Your task to perform on an android device: empty trash in google photos Image 0: 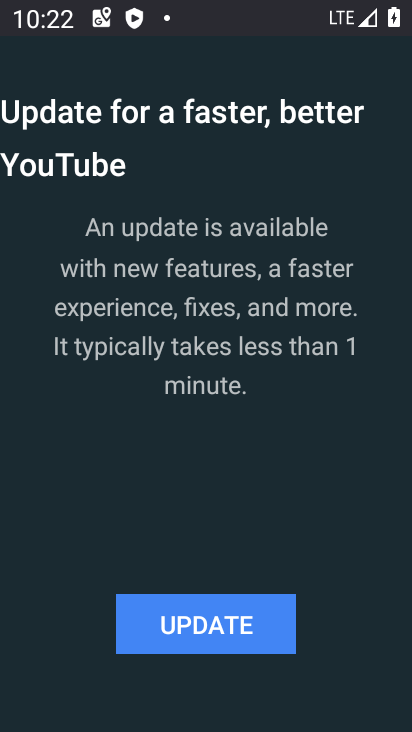
Step 0: press home button
Your task to perform on an android device: empty trash in google photos Image 1: 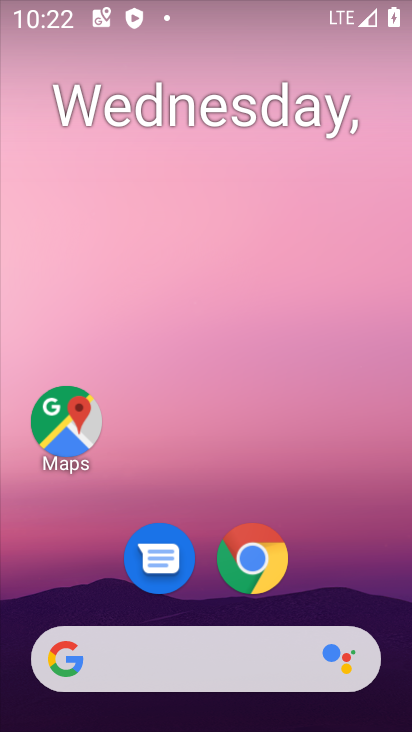
Step 1: drag from (44, 602) to (385, 75)
Your task to perform on an android device: empty trash in google photos Image 2: 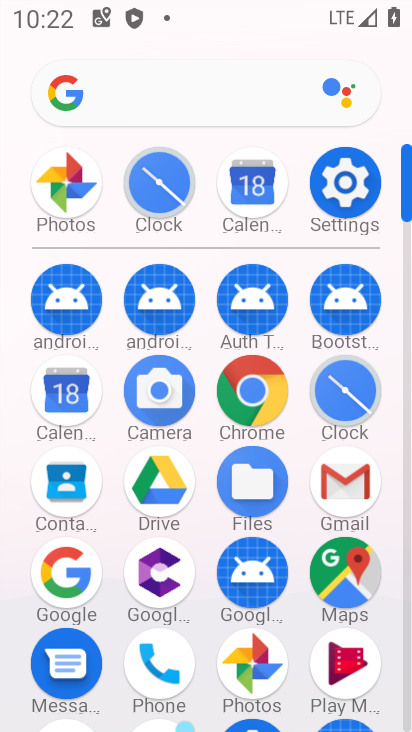
Step 2: click (60, 188)
Your task to perform on an android device: empty trash in google photos Image 3: 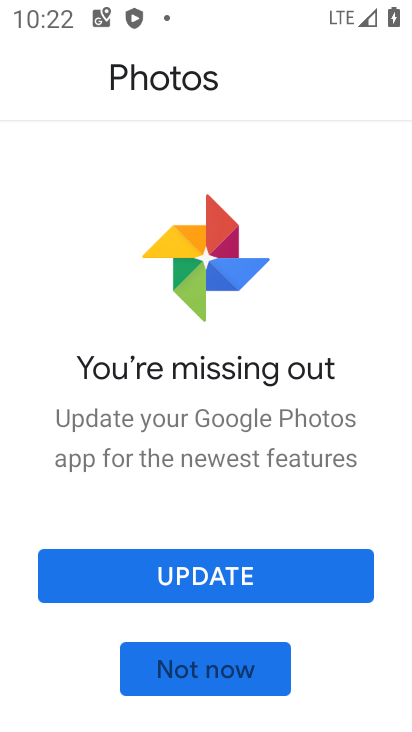
Step 3: click (161, 685)
Your task to perform on an android device: empty trash in google photos Image 4: 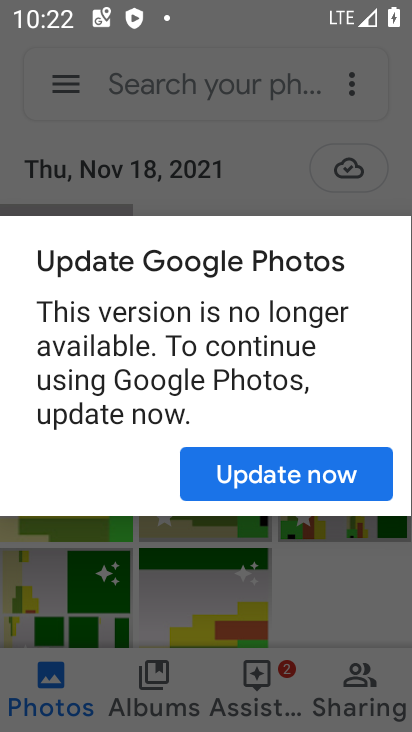
Step 4: click (223, 465)
Your task to perform on an android device: empty trash in google photos Image 5: 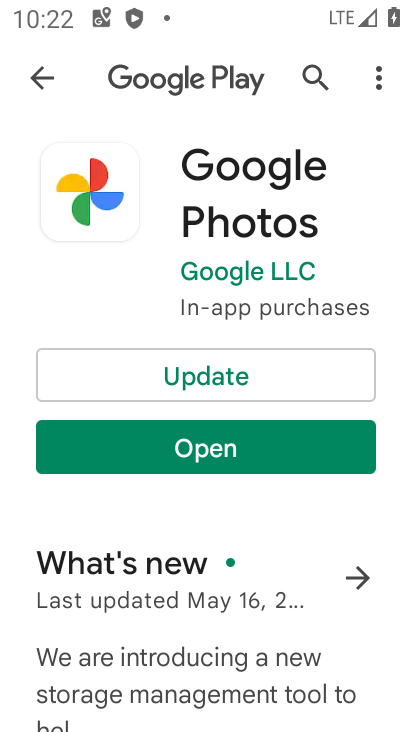
Step 5: click (254, 460)
Your task to perform on an android device: empty trash in google photos Image 6: 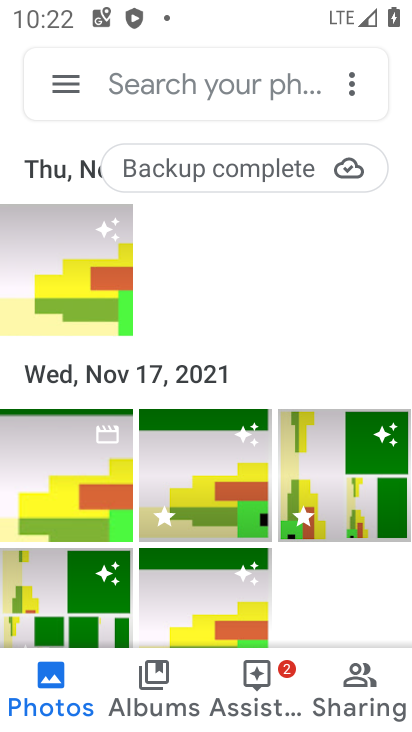
Step 6: click (53, 77)
Your task to perform on an android device: empty trash in google photos Image 7: 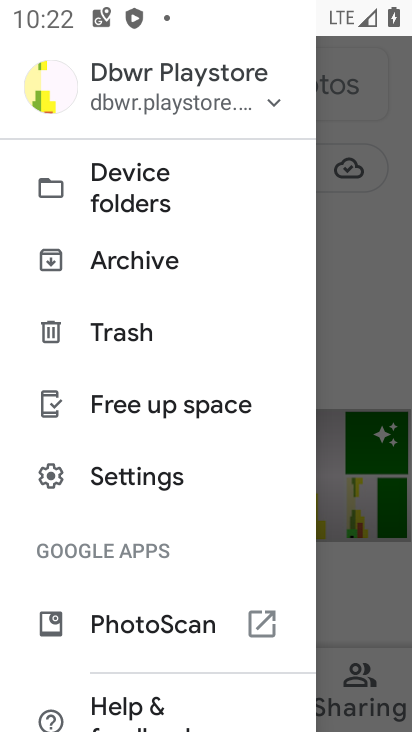
Step 7: click (103, 343)
Your task to perform on an android device: empty trash in google photos Image 8: 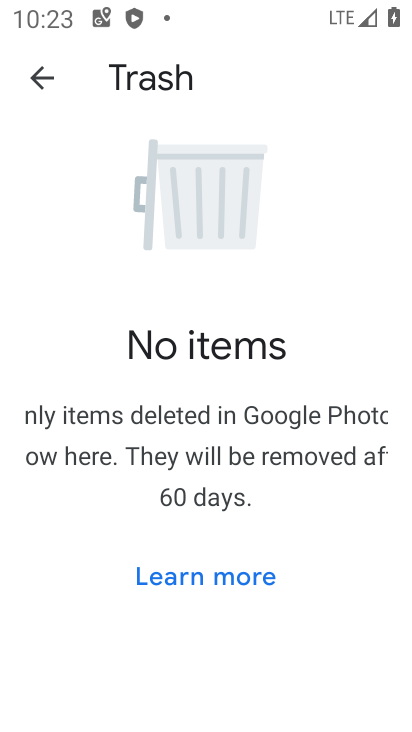
Step 8: task complete